Your task to perform on an android device: turn on translation in the chrome app Image 0: 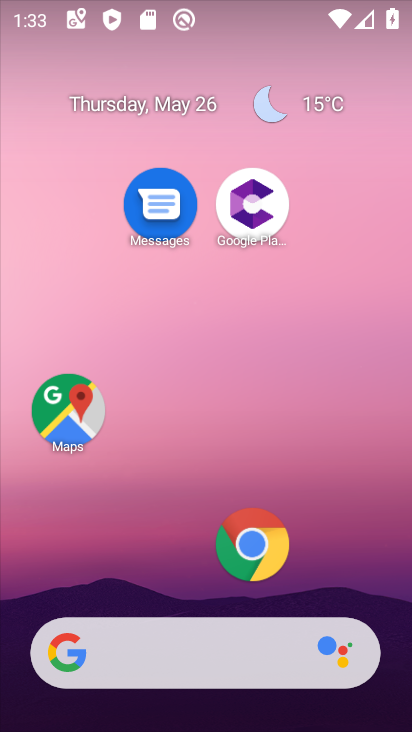
Step 0: click (243, 547)
Your task to perform on an android device: turn on translation in the chrome app Image 1: 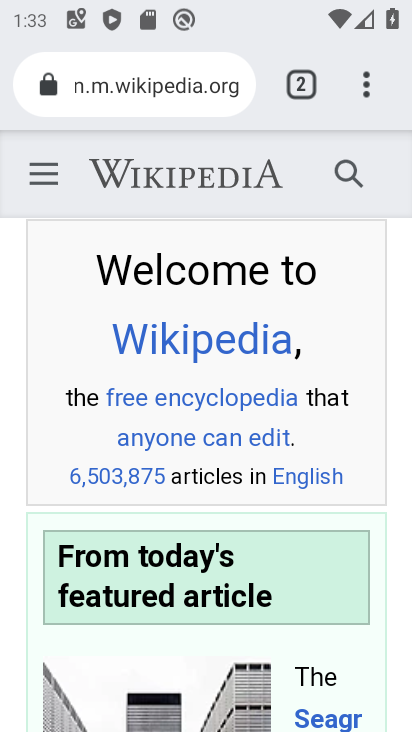
Step 1: click (374, 77)
Your task to perform on an android device: turn on translation in the chrome app Image 2: 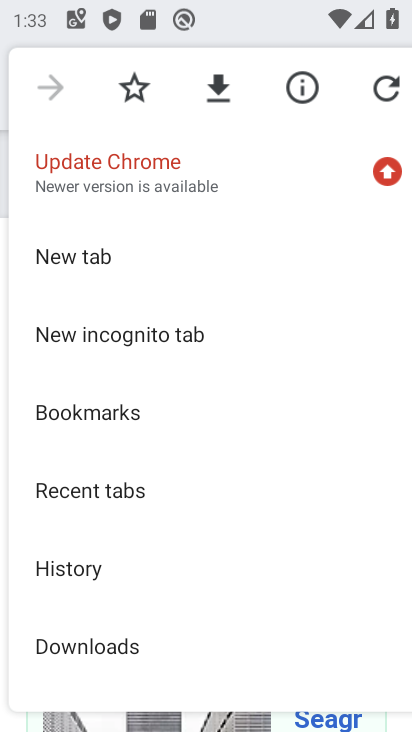
Step 2: drag from (120, 571) to (223, 260)
Your task to perform on an android device: turn on translation in the chrome app Image 3: 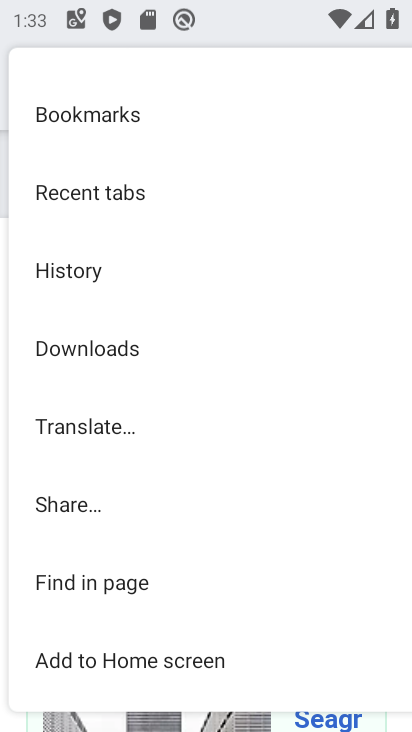
Step 3: drag from (206, 451) to (251, 101)
Your task to perform on an android device: turn on translation in the chrome app Image 4: 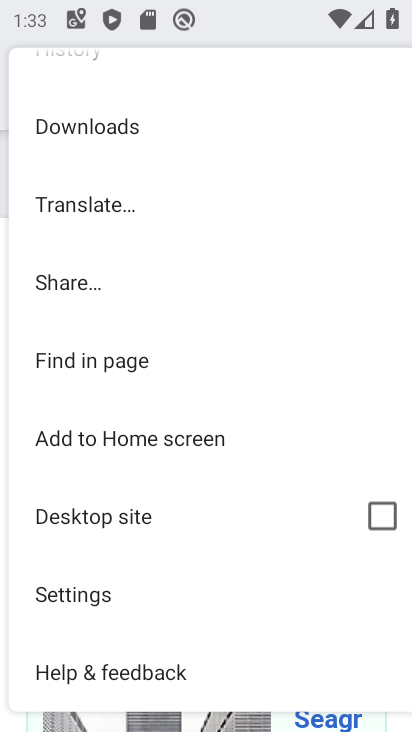
Step 4: click (112, 580)
Your task to perform on an android device: turn on translation in the chrome app Image 5: 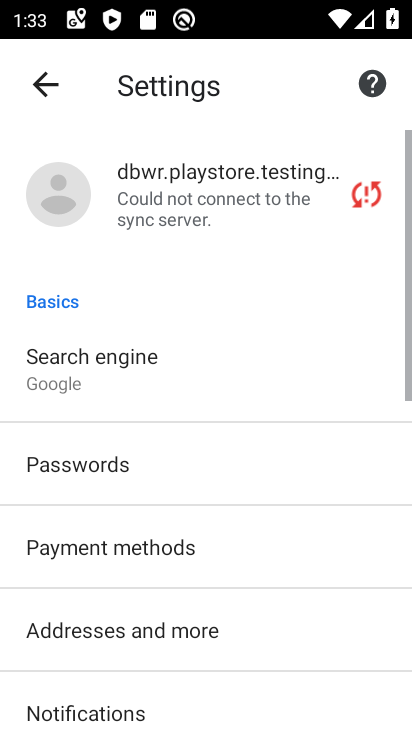
Step 5: drag from (112, 580) to (186, 232)
Your task to perform on an android device: turn on translation in the chrome app Image 6: 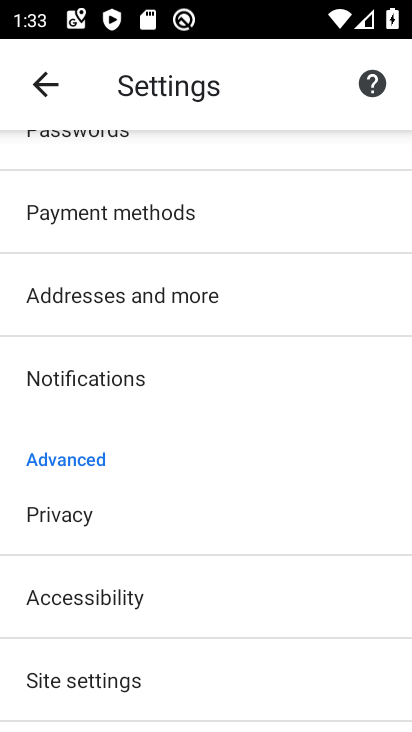
Step 6: drag from (140, 604) to (265, 56)
Your task to perform on an android device: turn on translation in the chrome app Image 7: 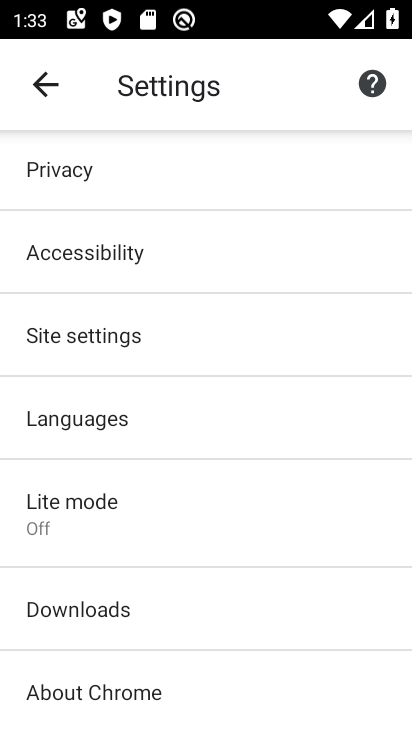
Step 7: click (83, 427)
Your task to perform on an android device: turn on translation in the chrome app Image 8: 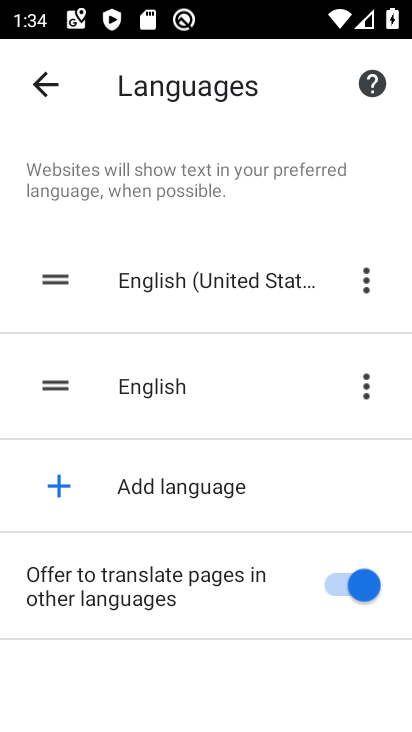
Step 8: task complete